Your task to perform on an android device: change the clock display to analog Image 0: 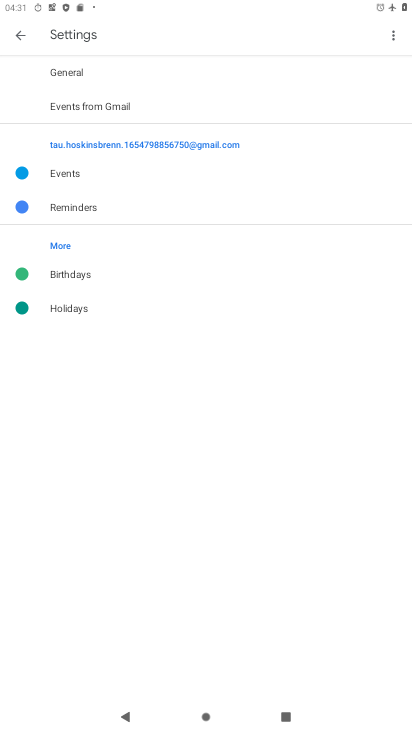
Step 0: press home button
Your task to perform on an android device: change the clock display to analog Image 1: 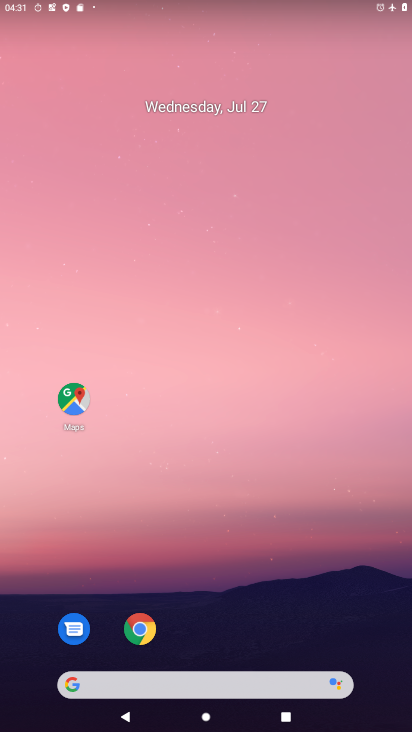
Step 1: drag from (290, 541) to (263, 57)
Your task to perform on an android device: change the clock display to analog Image 2: 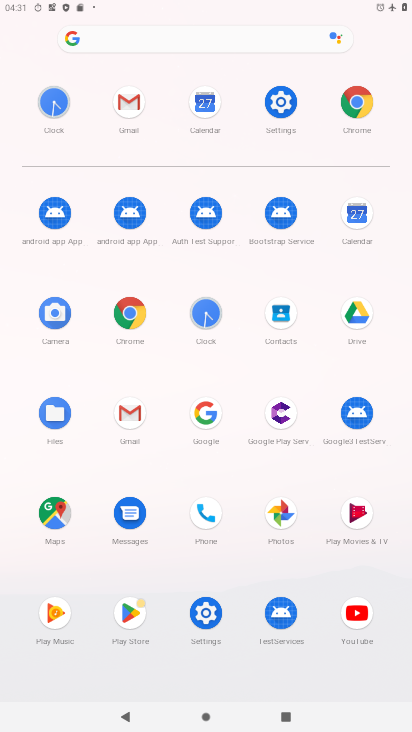
Step 2: click (206, 313)
Your task to perform on an android device: change the clock display to analog Image 3: 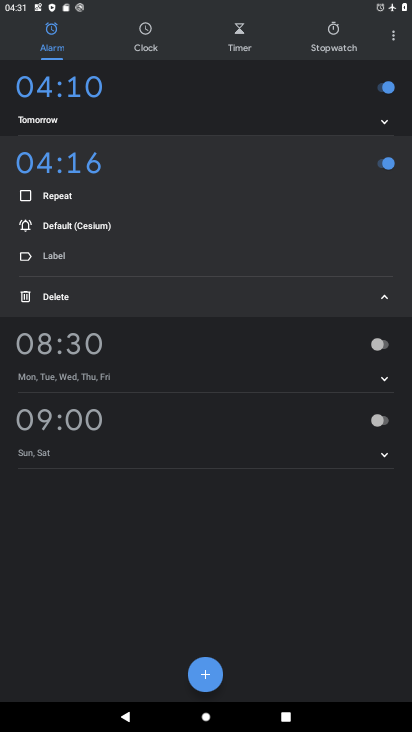
Step 3: click (394, 34)
Your task to perform on an android device: change the clock display to analog Image 4: 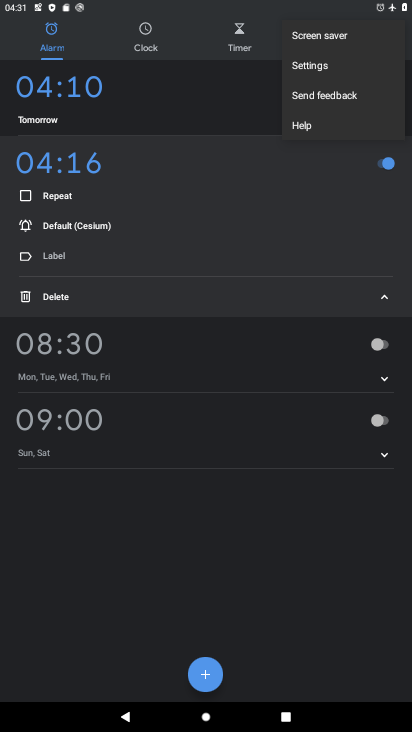
Step 4: click (312, 71)
Your task to perform on an android device: change the clock display to analog Image 5: 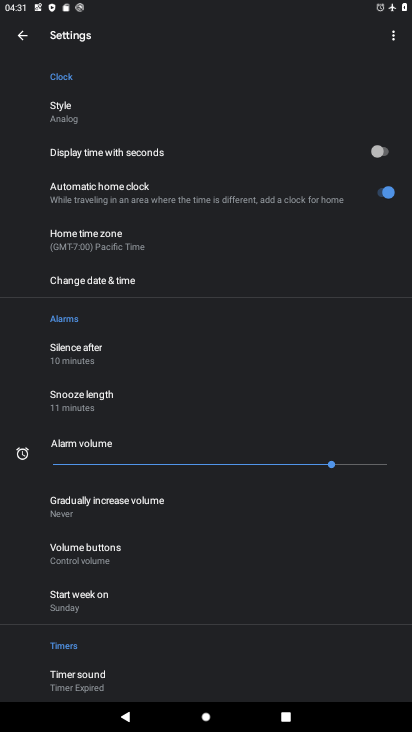
Step 5: task complete